Your task to perform on an android device: Do I have any events tomorrow? Image 0: 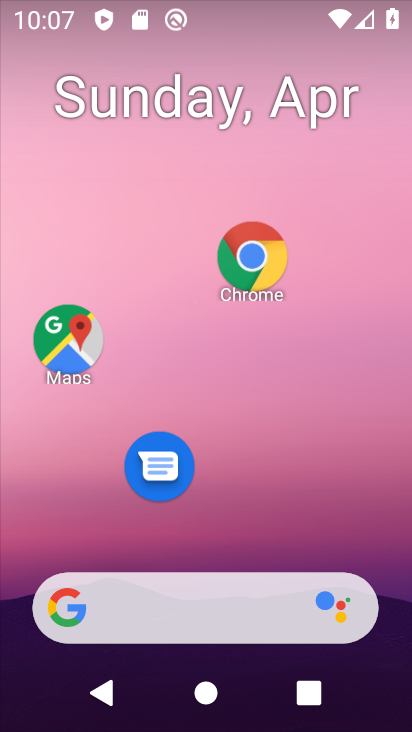
Step 0: drag from (219, 641) to (219, 92)
Your task to perform on an android device: Do I have any events tomorrow? Image 1: 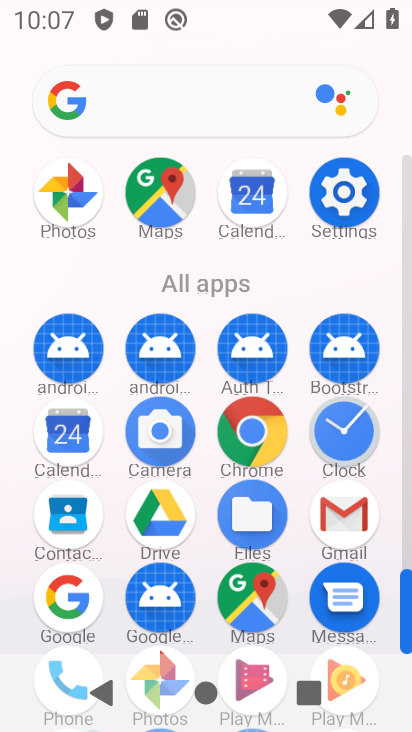
Step 1: click (65, 441)
Your task to perform on an android device: Do I have any events tomorrow? Image 2: 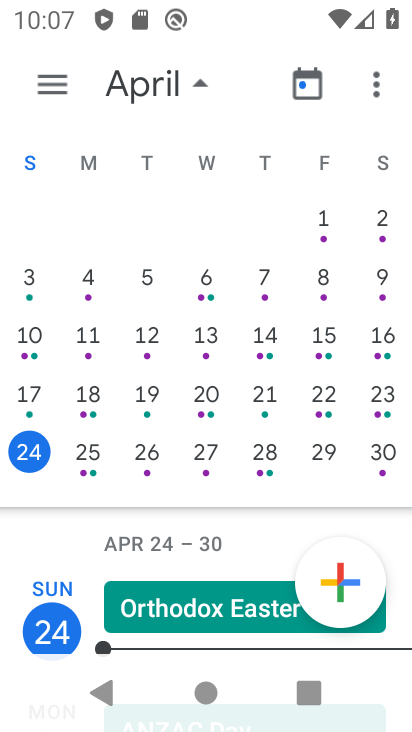
Step 2: click (46, 88)
Your task to perform on an android device: Do I have any events tomorrow? Image 3: 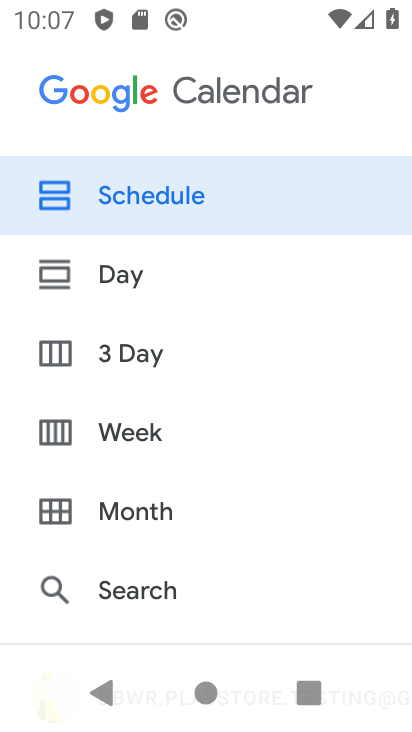
Step 3: drag from (182, 620) to (190, 212)
Your task to perform on an android device: Do I have any events tomorrow? Image 4: 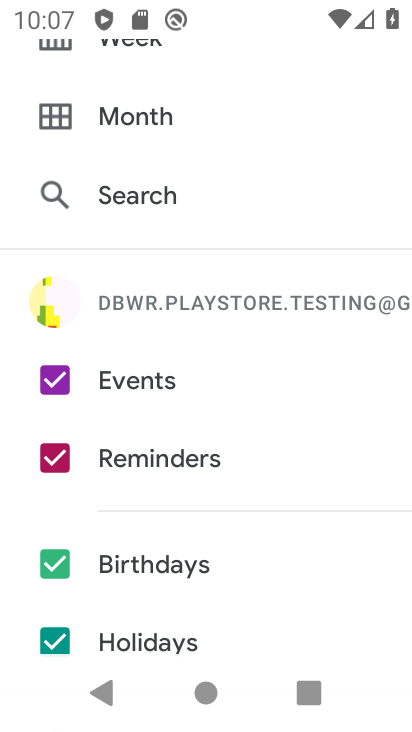
Step 4: click (51, 633)
Your task to perform on an android device: Do I have any events tomorrow? Image 5: 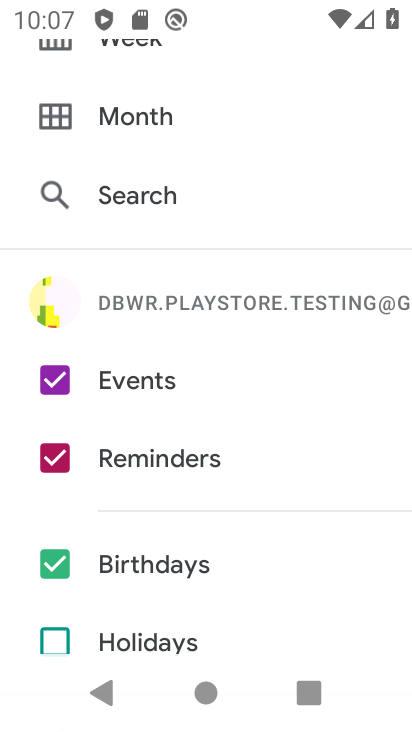
Step 5: click (56, 559)
Your task to perform on an android device: Do I have any events tomorrow? Image 6: 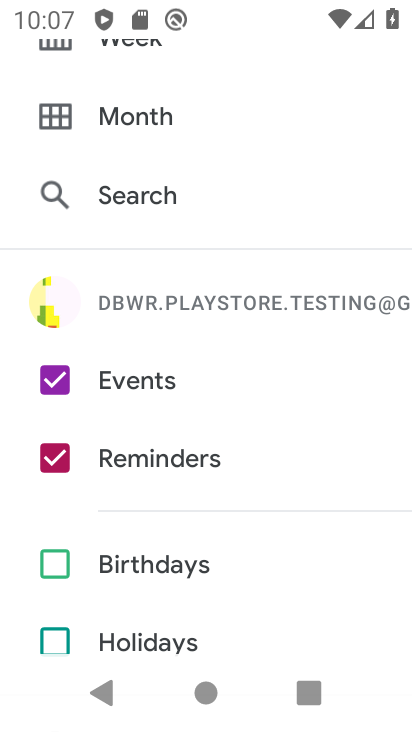
Step 6: click (57, 459)
Your task to perform on an android device: Do I have any events tomorrow? Image 7: 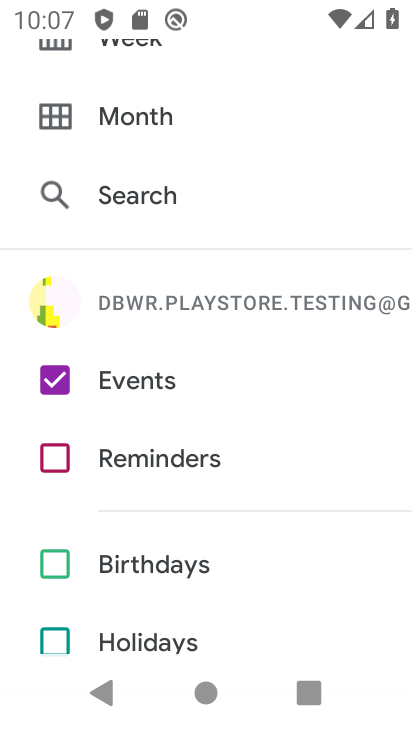
Step 7: drag from (300, 141) to (296, 589)
Your task to perform on an android device: Do I have any events tomorrow? Image 8: 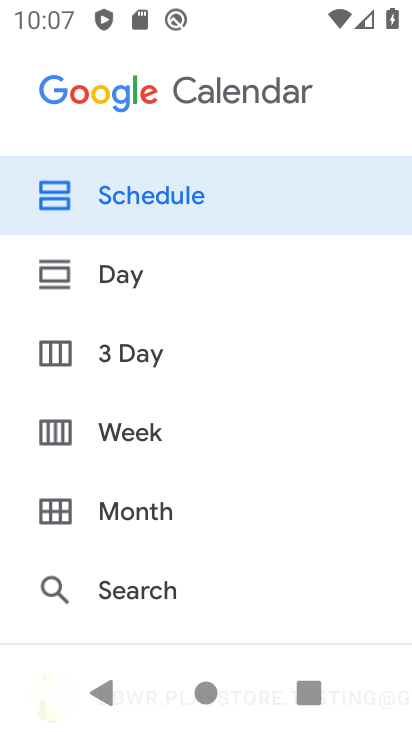
Step 8: click (118, 429)
Your task to perform on an android device: Do I have any events tomorrow? Image 9: 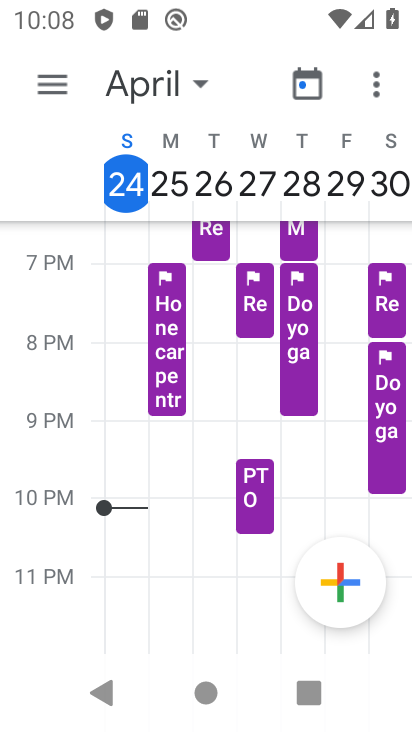
Step 9: click (173, 174)
Your task to perform on an android device: Do I have any events tomorrow? Image 10: 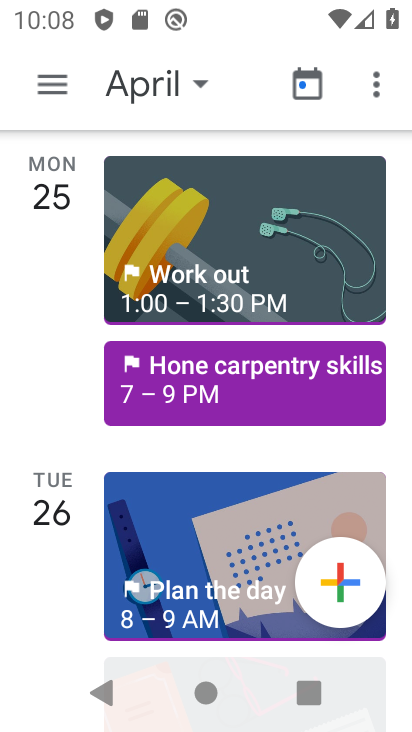
Step 10: task complete